Your task to perform on an android device: open chrome and create a bookmark for the current page Image 0: 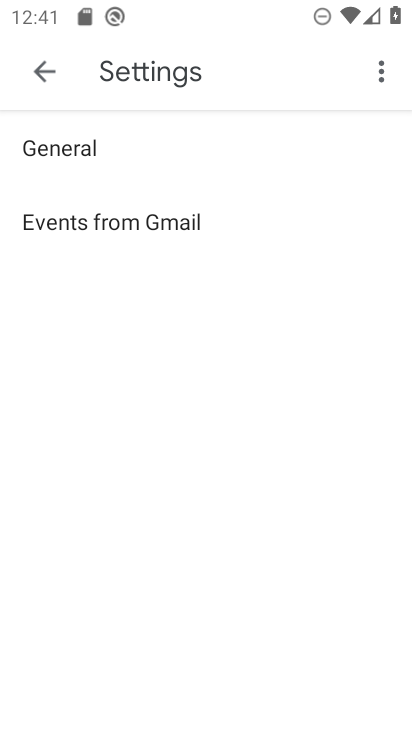
Step 0: press home button
Your task to perform on an android device: open chrome and create a bookmark for the current page Image 1: 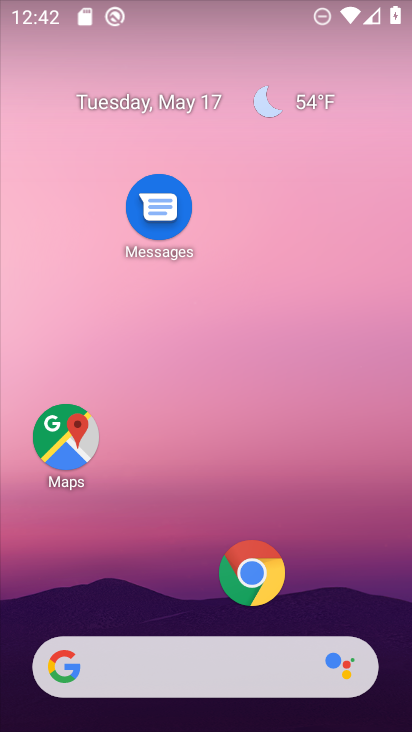
Step 1: click (249, 566)
Your task to perform on an android device: open chrome and create a bookmark for the current page Image 2: 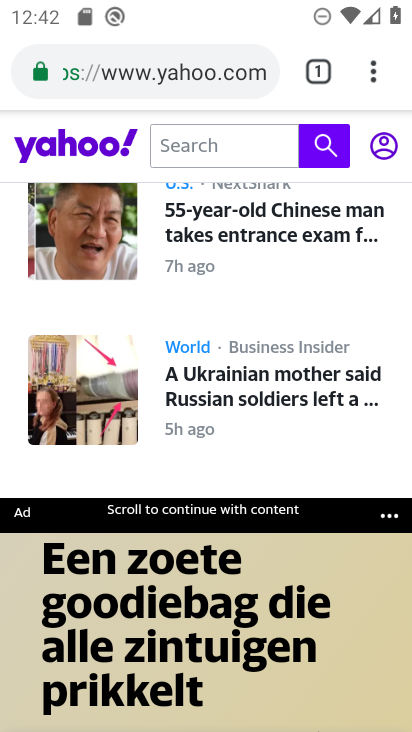
Step 2: click (380, 75)
Your task to perform on an android device: open chrome and create a bookmark for the current page Image 3: 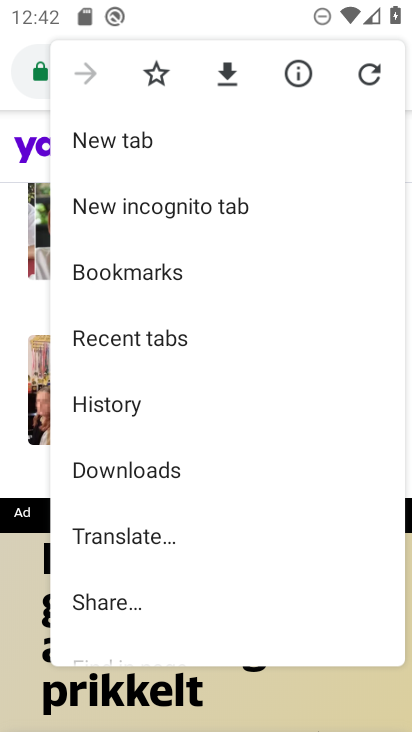
Step 3: click (169, 77)
Your task to perform on an android device: open chrome and create a bookmark for the current page Image 4: 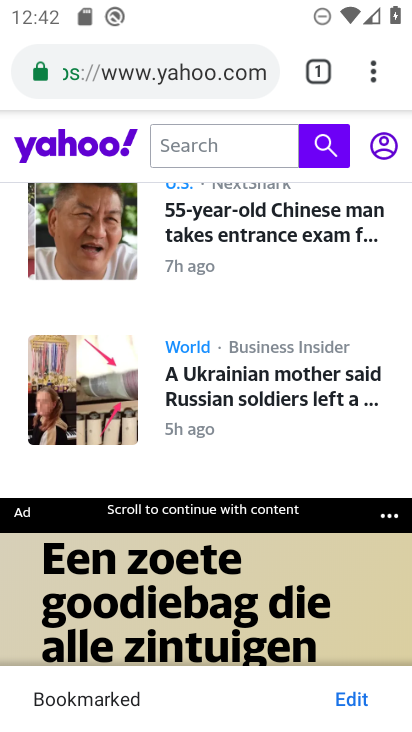
Step 4: task complete